Your task to perform on an android device: Open ESPN.com Image 0: 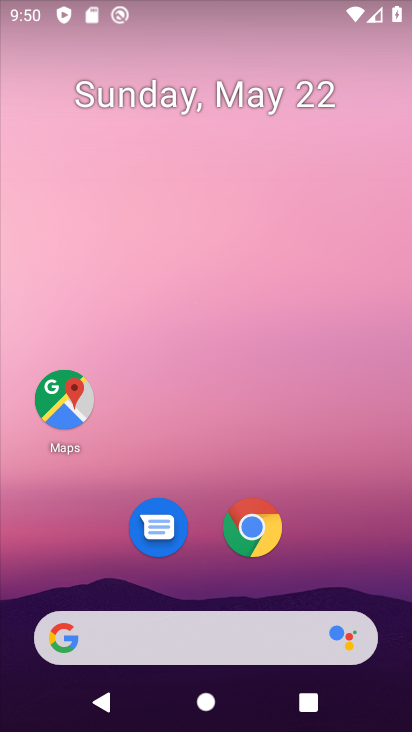
Step 0: click (258, 538)
Your task to perform on an android device: Open ESPN.com Image 1: 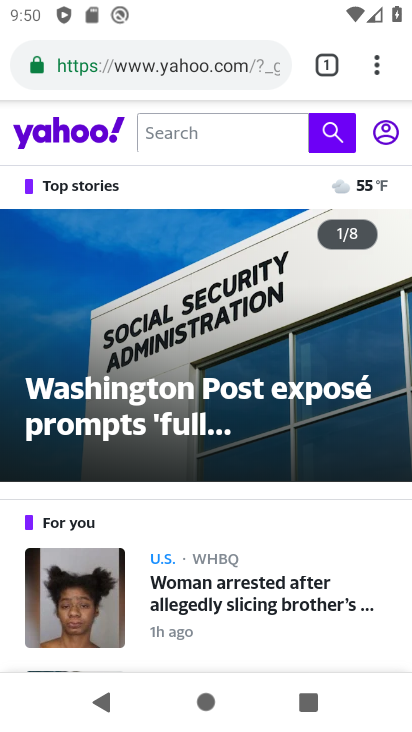
Step 1: click (196, 78)
Your task to perform on an android device: Open ESPN.com Image 2: 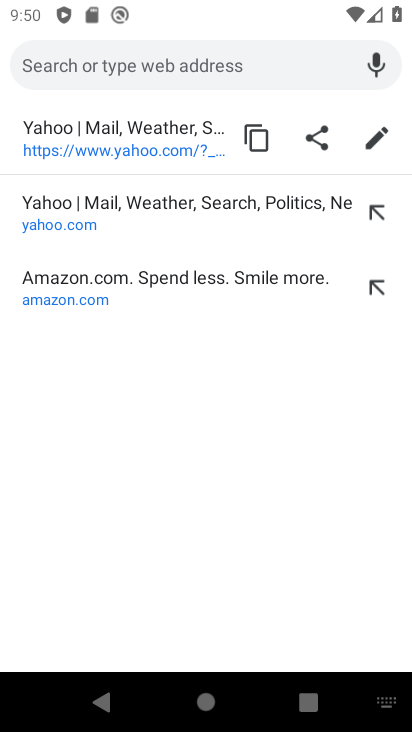
Step 2: type "espn.com"
Your task to perform on an android device: Open ESPN.com Image 3: 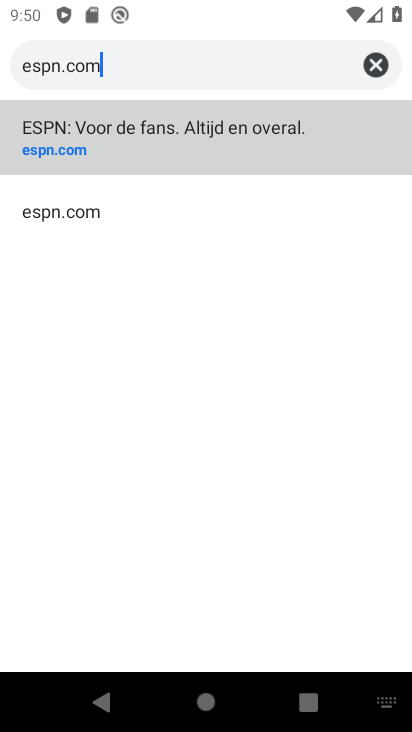
Step 3: click (61, 134)
Your task to perform on an android device: Open ESPN.com Image 4: 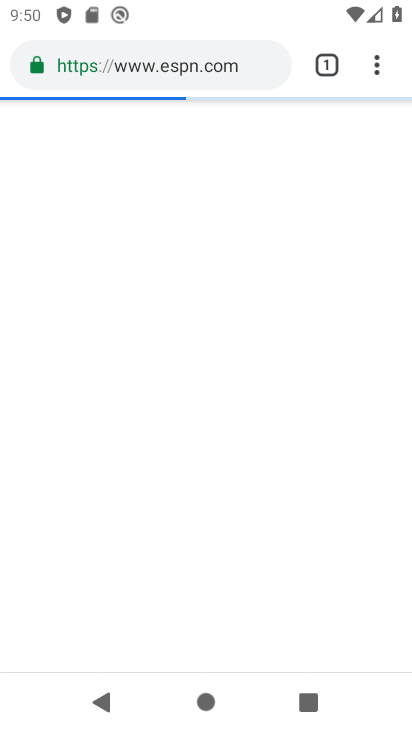
Step 4: task complete